Your task to perform on an android device: Go to location settings Image 0: 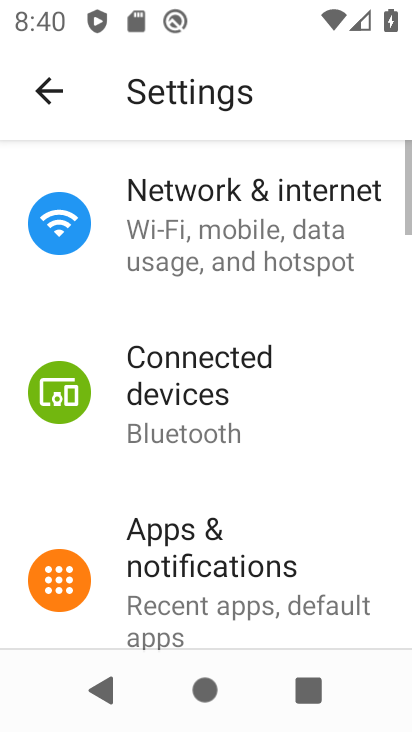
Step 0: press home button
Your task to perform on an android device: Go to location settings Image 1: 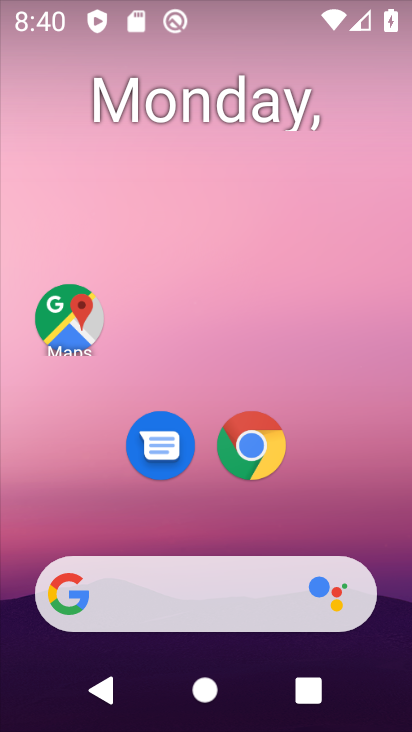
Step 1: drag from (269, 644) to (201, 150)
Your task to perform on an android device: Go to location settings Image 2: 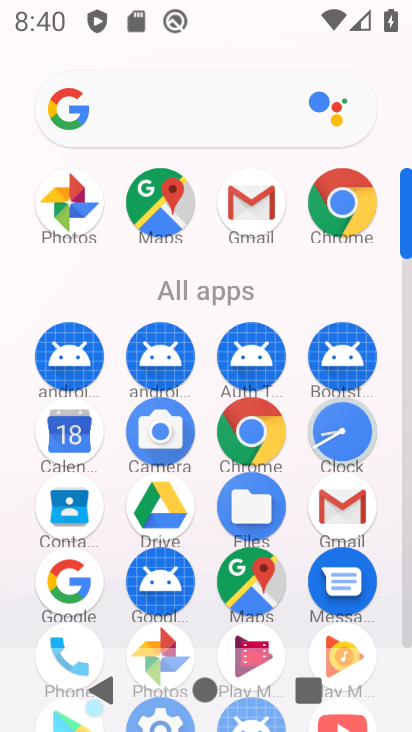
Step 2: drag from (245, 635) to (294, 236)
Your task to perform on an android device: Go to location settings Image 3: 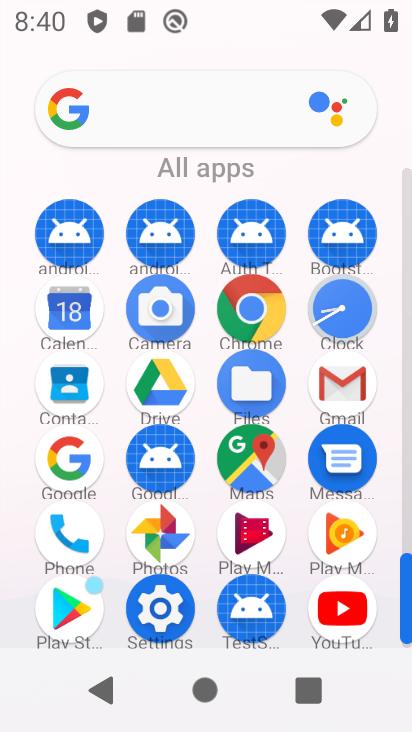
Step 3: click (164, 614)
Your task to perform on an android device: Go to location settings Image 4: 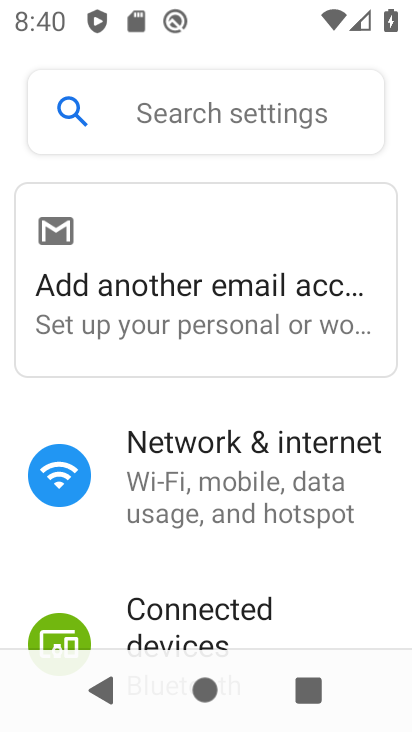
Step 4: drag from (295, 521) to (261, 151)
Your task to perform on an android device: Go to location settings Image 5: 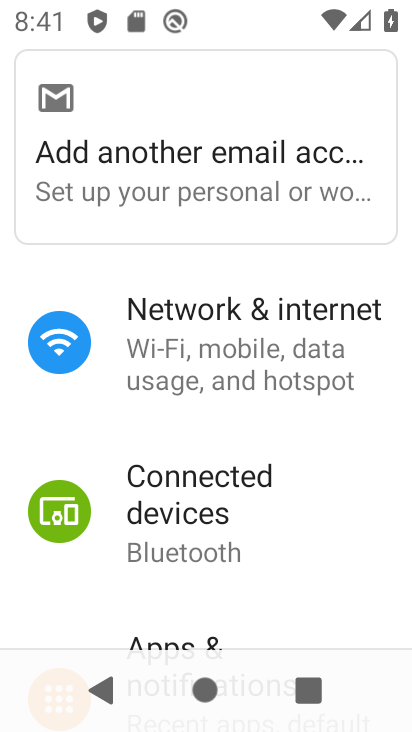
Step 5: drag from (313, 532) to (333, 150)
Your task to perform on an android device: Go to location settings Image 6: 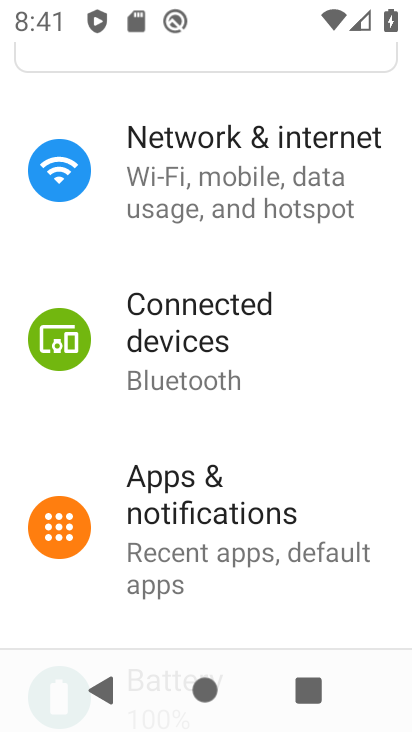
Step 6: drag from (319, 580) to (316, 94)
Your task to perform on an android device: Go to location settings Image 7: 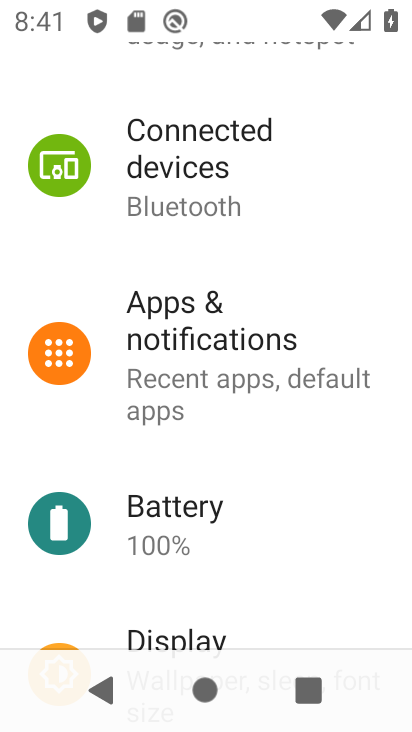
Step 7: drag from (341, 443) to (316, 60)
Your task to perform on an android device: Go to location settings Image 8: 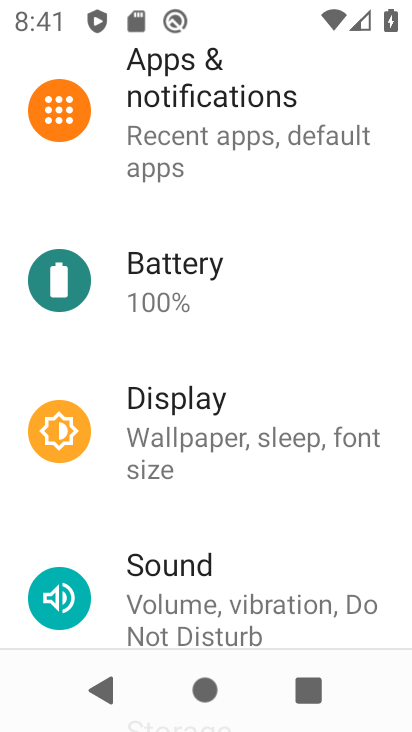
Step 8: drag from (324, 488) to (325, 115)
Your task to perform on an android device: Go to location settings Image 9: 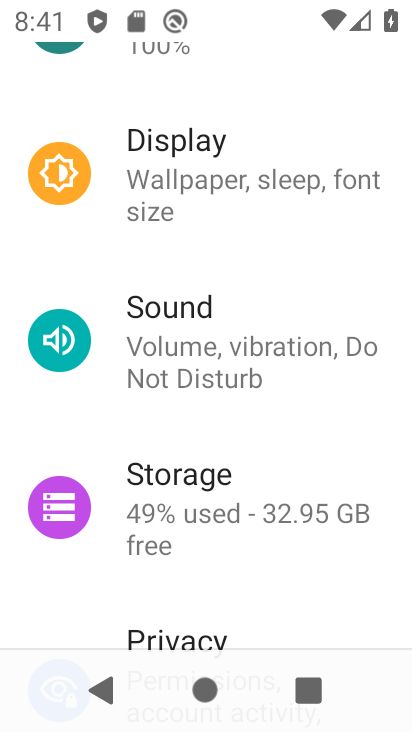
Step 9: drag from (282, 568) to (298, 187)
Your task to perform on an android device: Go to location settings Image 10: 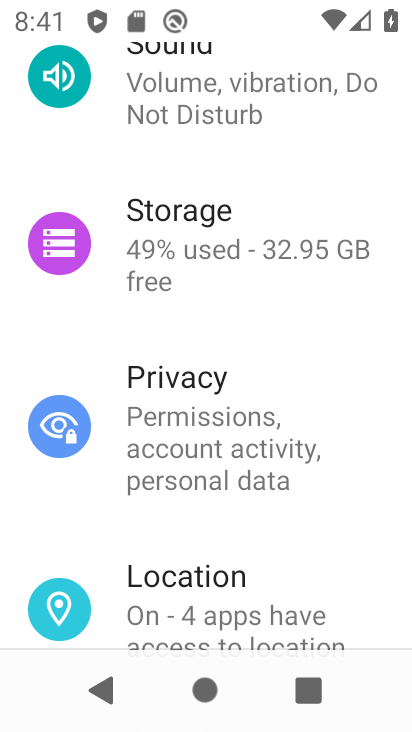
Step 10: drag from (273, 584) to (370, 182)
Your task to perform on an android device: Go to location settings Image 11: 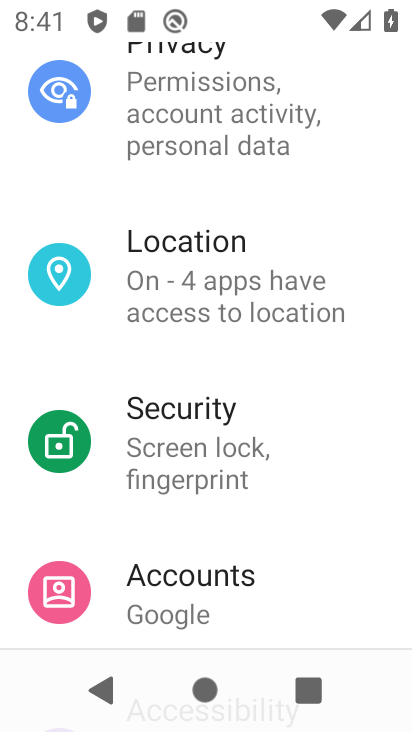
Step 11: click (266, 287)
Your task to perform on an android device: Go to location settings Image 12: 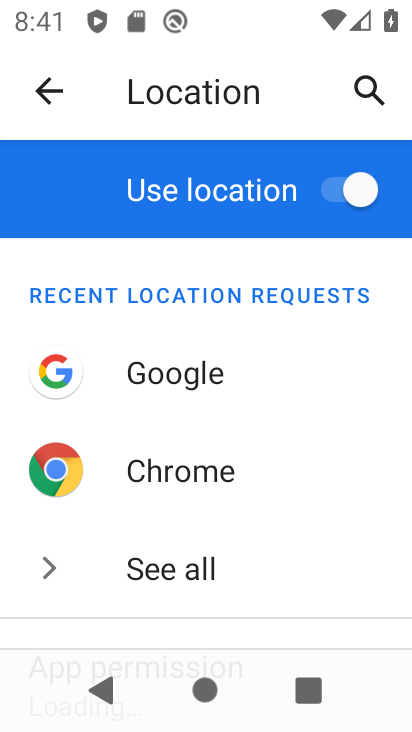
Step 12: task complete